Your task to perform on an android device: set default search engine in the chrome app Image 0: 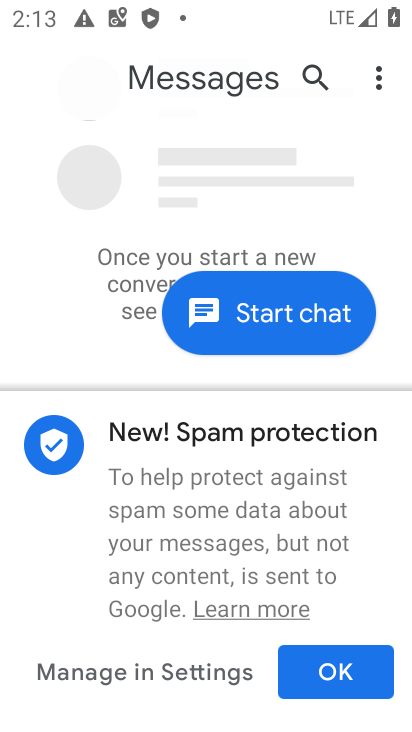
Step 0: press back button
Your task to perform on an android device: set default search engine in the chrome app Image 1: 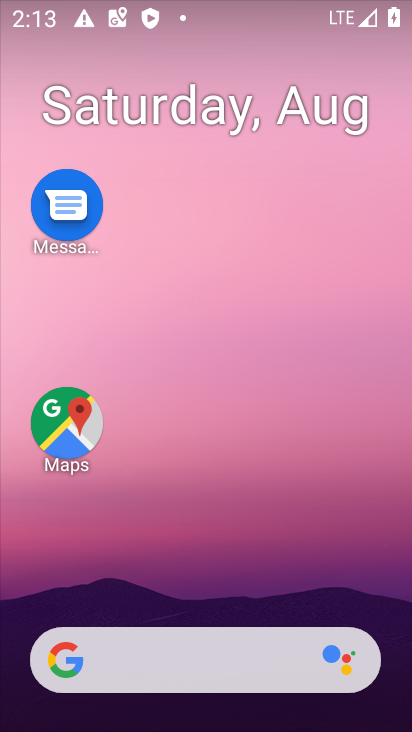
Step 1: drag from (268, 604) to (225, 26)
Your task to perform on an android device: set default search engine in the chrome app Image 2: 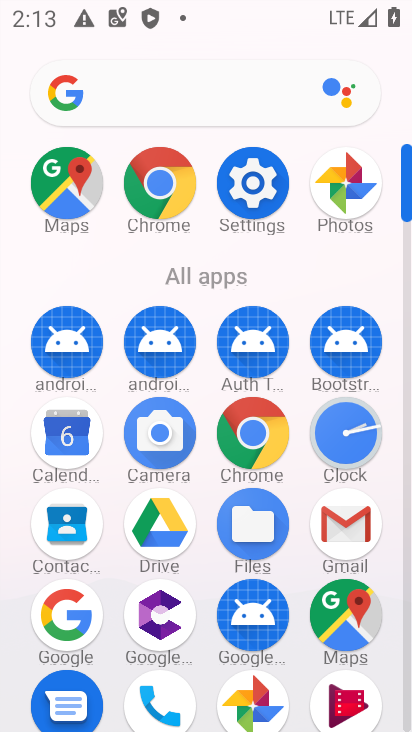
Step 2: click (157, 205)
Your task to perform on an android device: set default search engine in the chrome app Image 3: 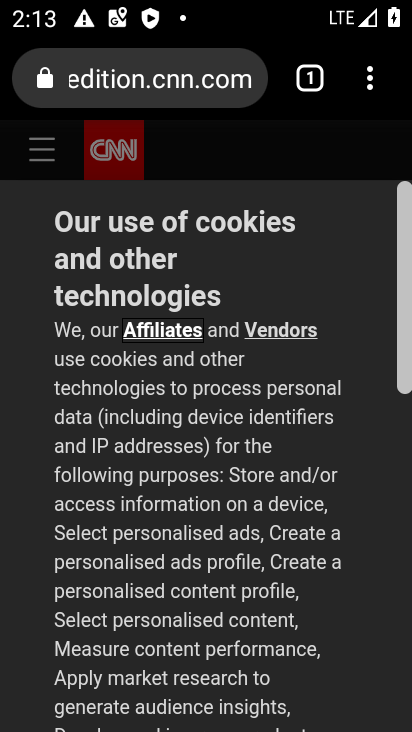
Step 3: click (382, 77)
Your task to perform on an android device: set default search engine in the chrome app Image 4: 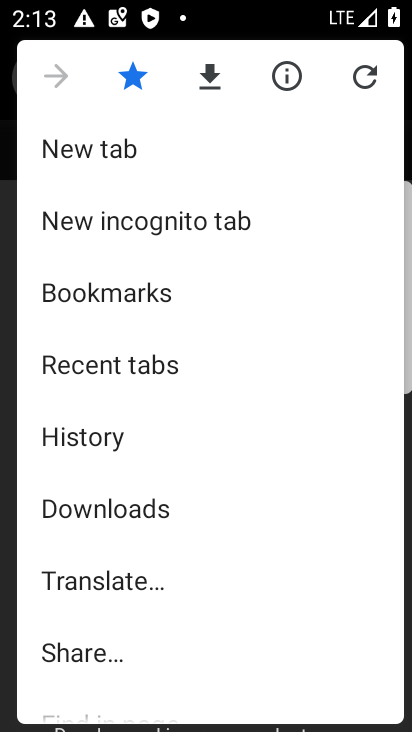
Step 4: drag from (238, 518) to (228, 18)
Your task to perform on an android device: set default search engine in the chrome app Image 5: 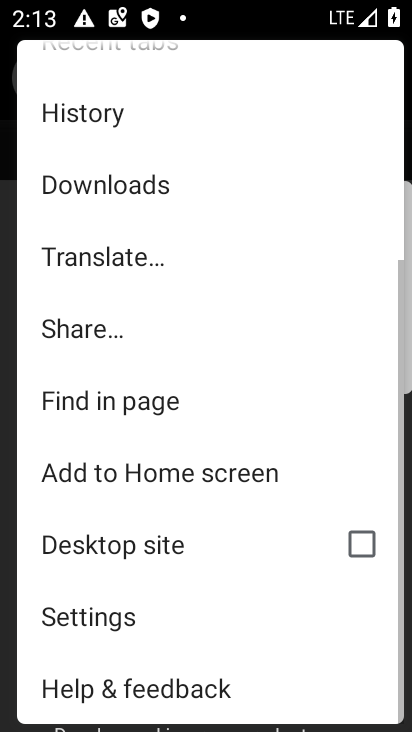
Step 5: click (118, 607)
Your task to perform on an android device: set default search engine in the chrome app Image 6: 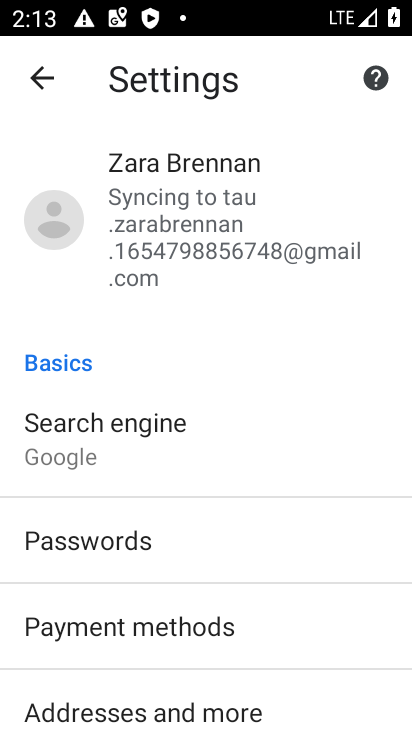
Step 6: drag from (224, 570) to (225, 179)
Your task to perform on an android device: set default search engine in the chrome app Image 7: 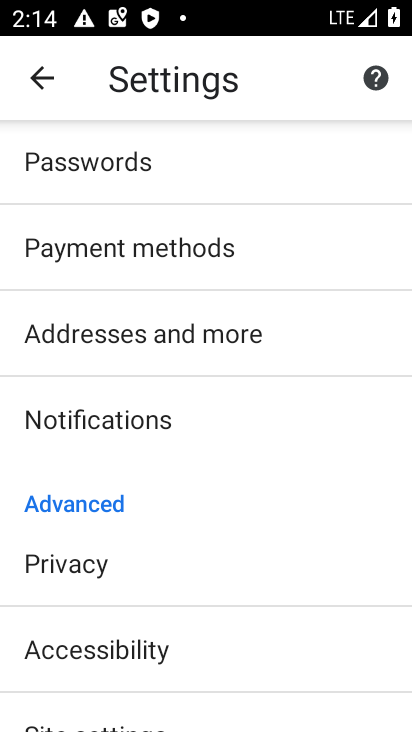
Step 7: drag from (215, 611) to (152, 113)
Your task to perform on an android device: set default search engine in the chrome app Image 8: 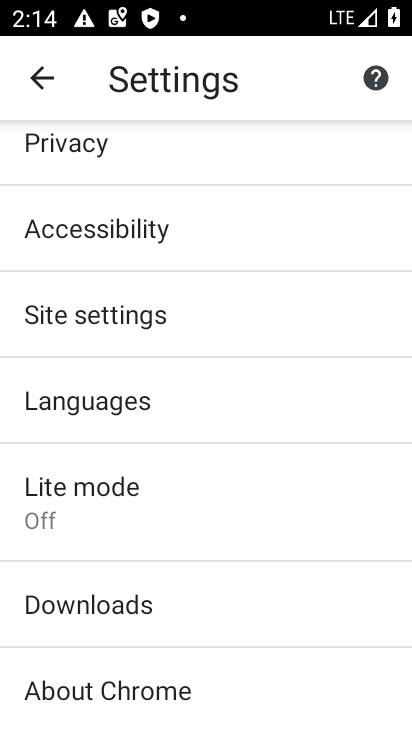
Step 8: click (83, 314)
Your task to perform on an android device: set default search engine in the chrome app Image 9: 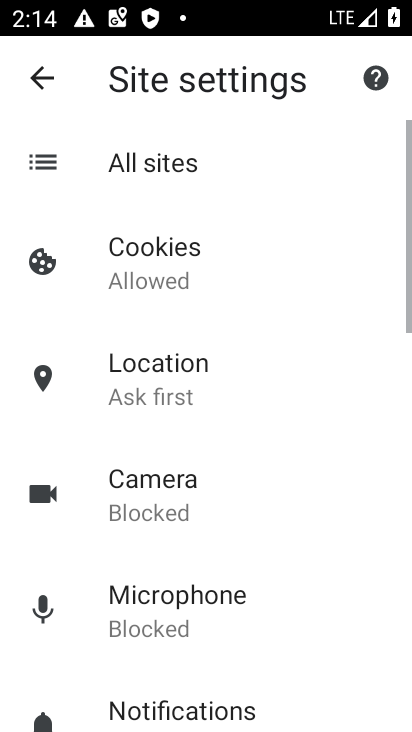
Step 9: click (32, 83)
Your task to perform on an android device: set default search engine in the chrome app Image 10: 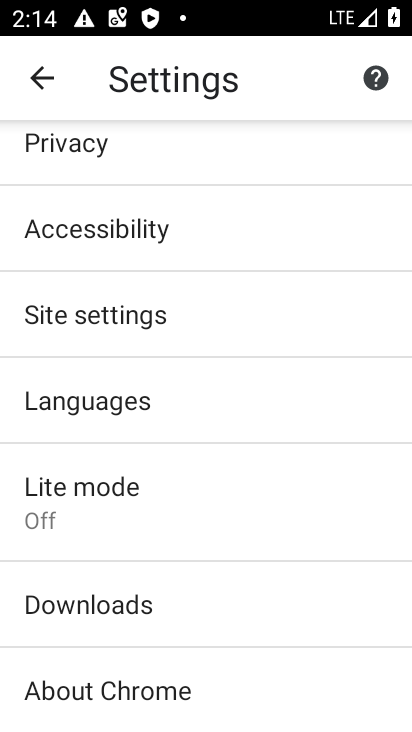
Step 10: drag from (86, 133) to (54, 594)
Your task to perform on an android device: set default search engine in the chrome app Image 11: 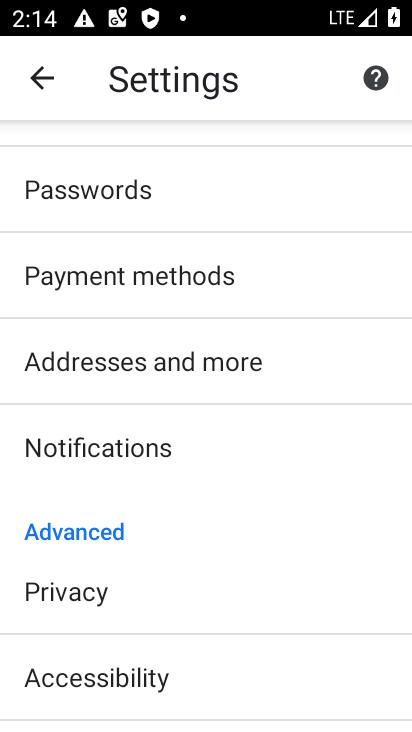
Step 11: drag from (116, 255) to (50, 670)
Your task to perform on an android device: set default search engine in the chrome app Image 12: 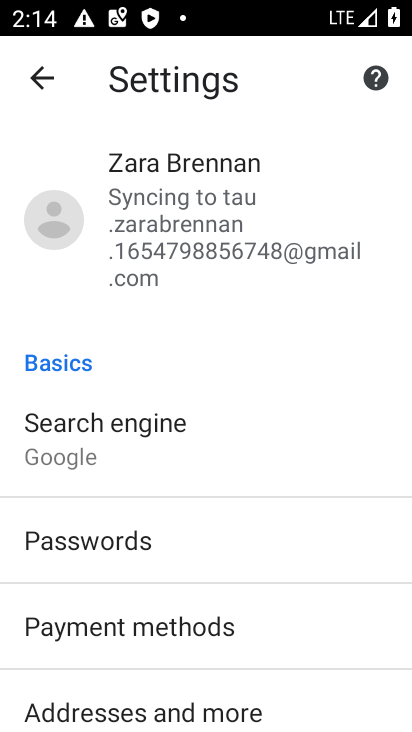
Step 12: click (89, 452)
Your task to perform on an android device: set default search engine in the chrome app Image 13: 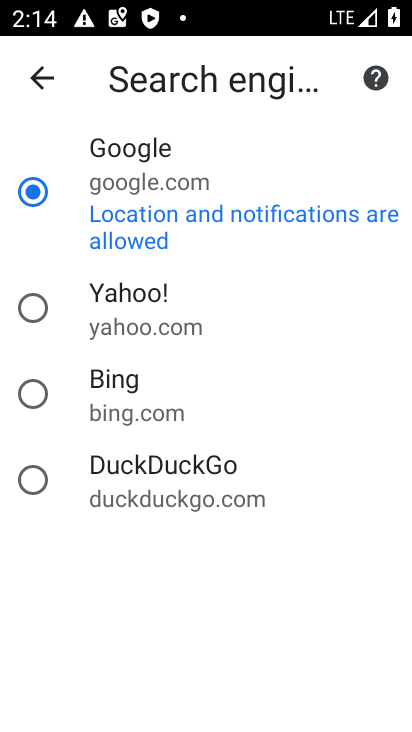
Step 13: click (46, 179)
Your task to perform on an android device: set default search engine in the chrome app Image 14: 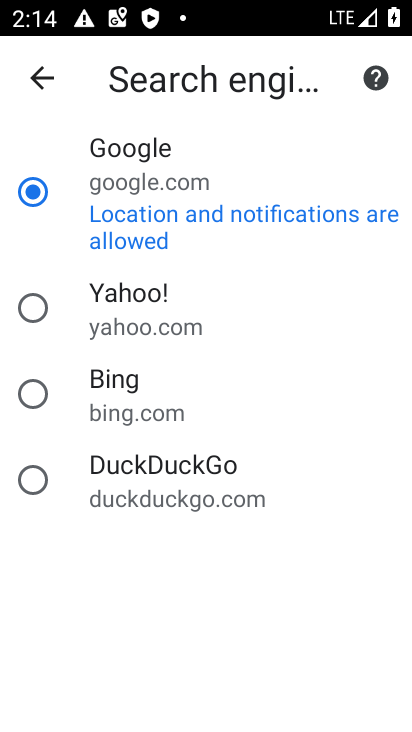
Step 14: task complete